Your task to perform on an android device: toggle data saver in the chrome app Image 0: 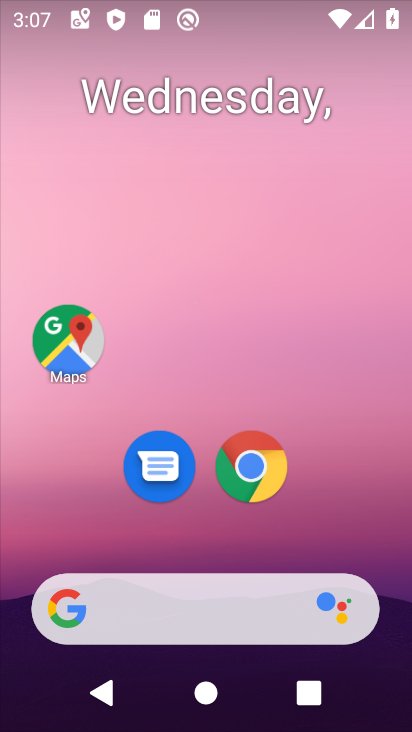
Step 0: click (251, 445)
Your task to perform on an android device: toggle data saver in the chrome app Image 1: 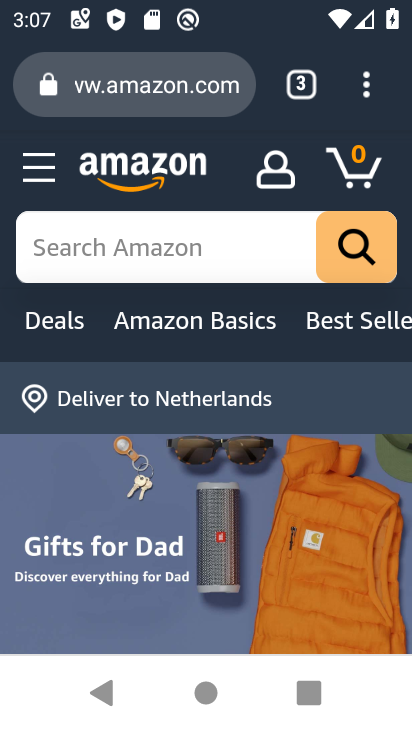
Step 1: click (365, 74)
Your task to perform on an android device: toggle data saver in the chrome app Image 2: 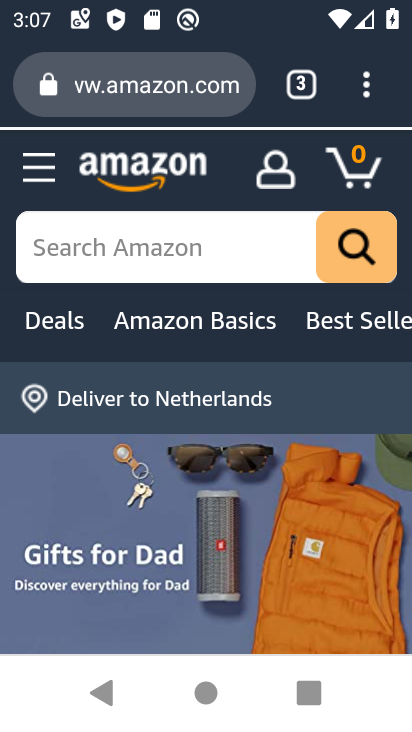
Step 2: drag from (362, 82) to (117, 528)
Your task to perform on an android device: toggle data saver in the chrome app Image 3: 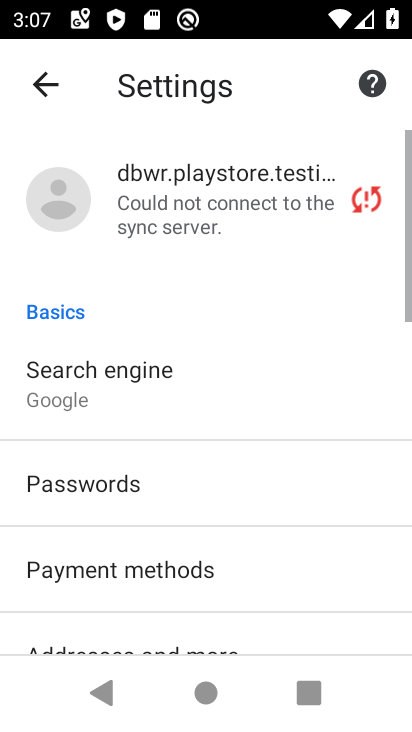
Step 3: drag from (139, 546) to (91, 21)
Your task to perform on an android device: toggle data saver in the chrome app Image 4: 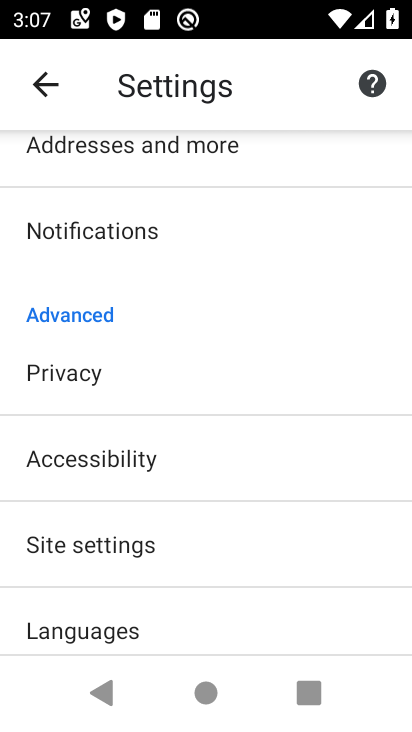
Step 4: drag from (119, 595) to (89, 113)
Your task to perform on an android device: toggle data saver in the chrome app Image 5: 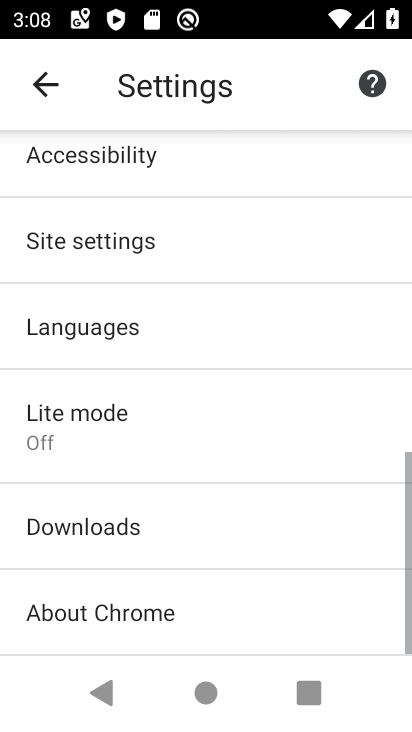
Step 5: click (101, 437)
Your task to perform on an android device: toggle data saver in the chrome app Image 6: 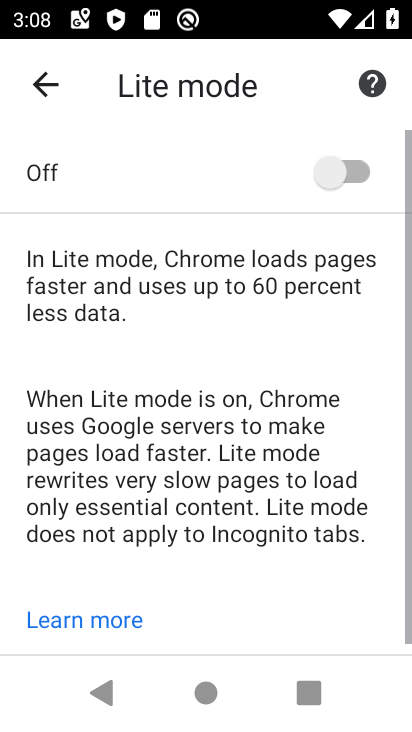
Step 6: click (353, 176)
Your task to perform on an android device: toggle data saver in the chrome app Image 7: 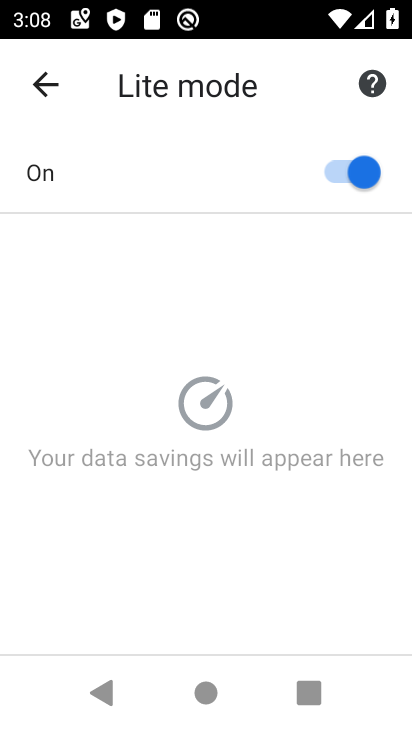
Step 7: task complete